Your task to perform on an android device: turn on notifications settings in the gmail app Image 0: 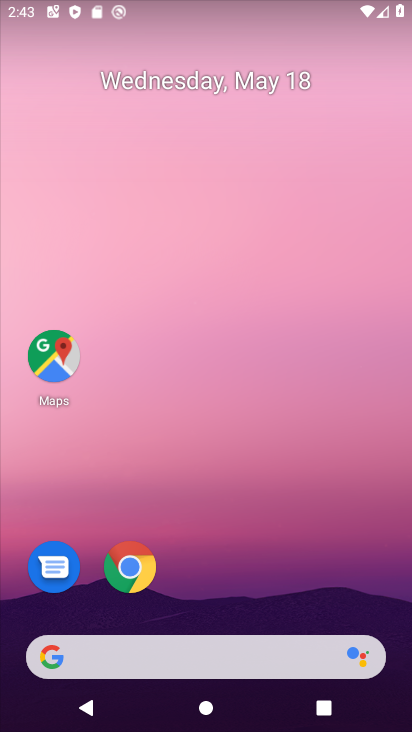
Step 0: drag from (212, 570) to (186, 243)
Your task to perform on an android device: turn on notifications settings in the gmail app Image 1: 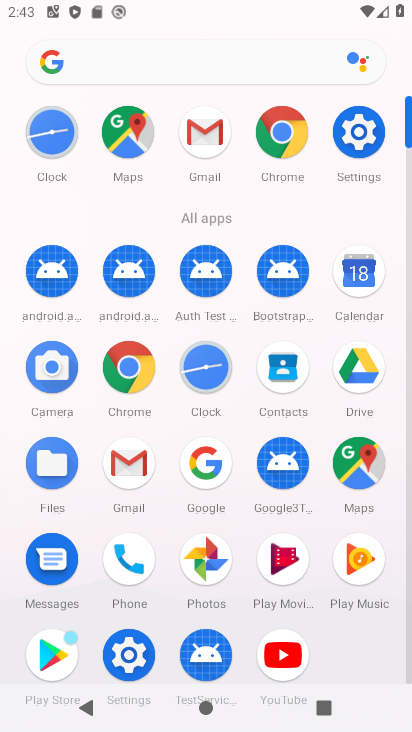
Step 1: click (217, 133)
Your task to perform on an android device: turn on notifications settings in the gmail app Image 2: 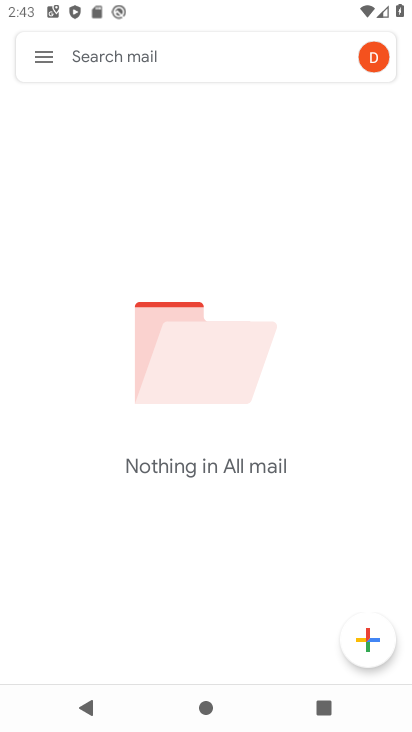
Step 2: click (33, 65)
Your task to perform on an android device: turn on notifications settings in the gmail app Image 3: 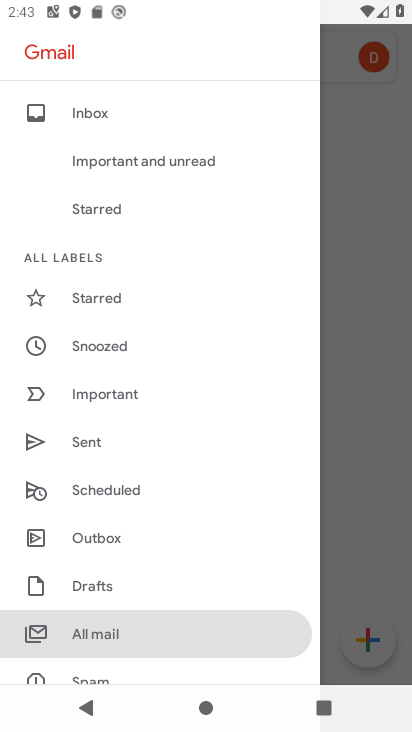
Step 3: drag from (133, 607) to (186, 378)
Your task to perform on an android device: turn on notifications settings in the gmail app Image 4: 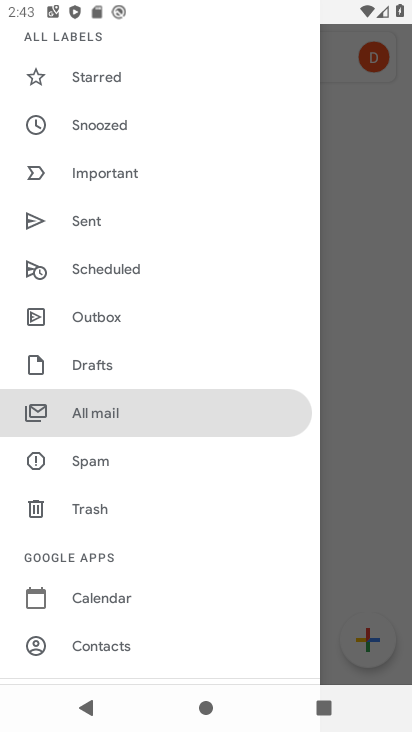
Step 4: drag from (145, 660) to (146, 482)
Your task to perform on an android device: turn on notifications settings in the gmail app Image 5: 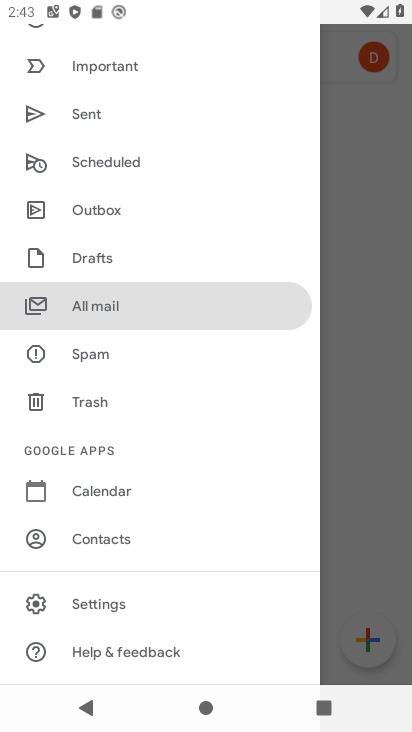
Step 5: click (97, 614)
Your task to perform on an android device: turn on notifications settings in the gmail app Image 6: 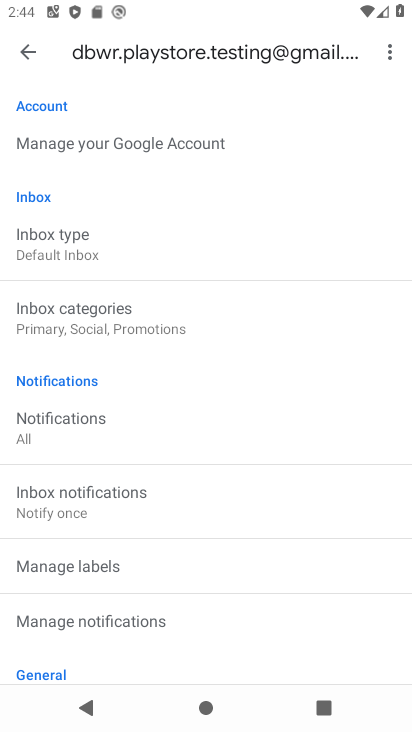
Step 6: click (92, 432)
Your task to perform on an android device: turn on notifications settings in the gmail app Image 7: 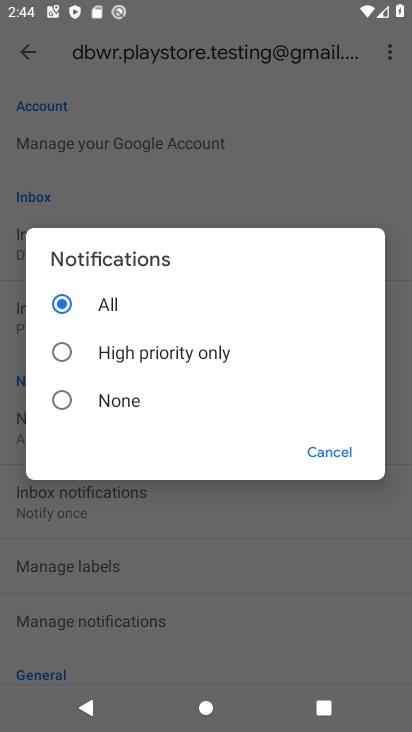
Step 7: task complete